Your task to perform on an android device: Go to notification settings Image 0: 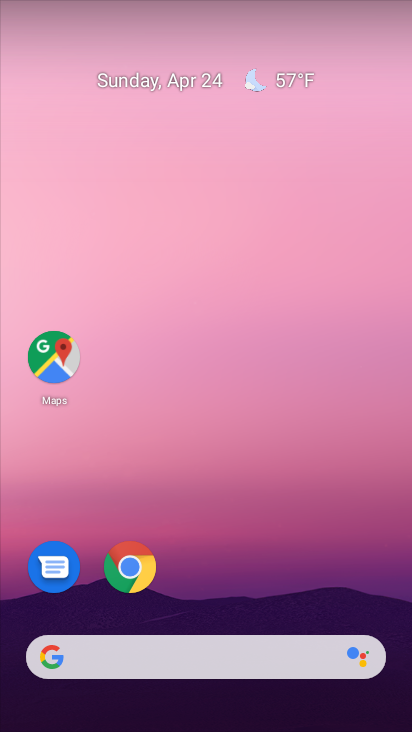
Step 0: drag from (391, 514) to (368, 100)
Your task to perform on an android device: Go to notification settings Image 1: 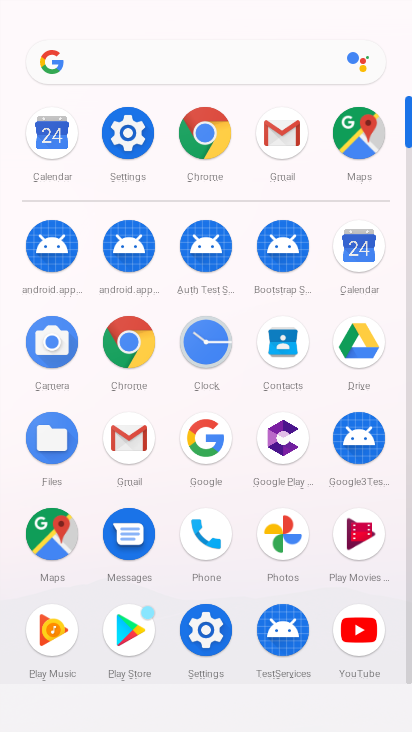
Step 1: click (130, 123)
Your task to perform on an android device: Go to notification settings Image 2: 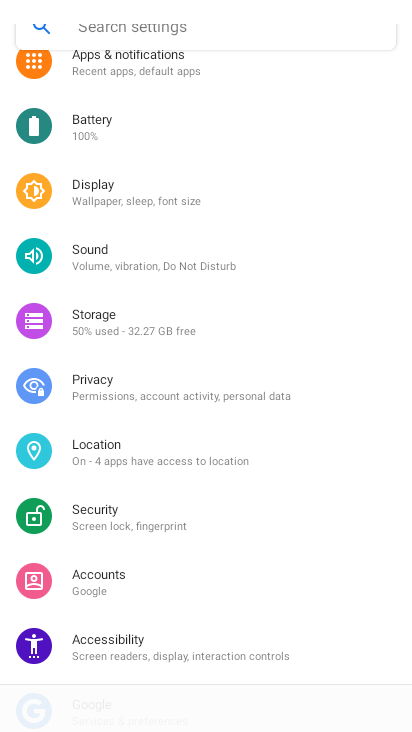
Step 2: click (145, 62)
Your task to perform on an android device: Go to notification settings Image 3: 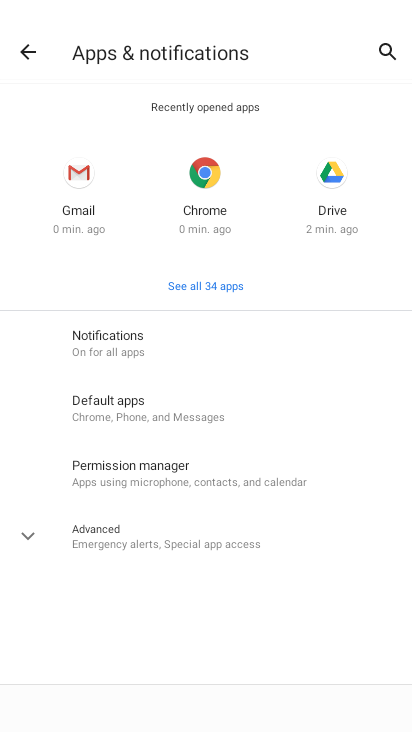
Step 3: click (90, 336)
Your task to perform on an android device: Go to notification settings Image 4: 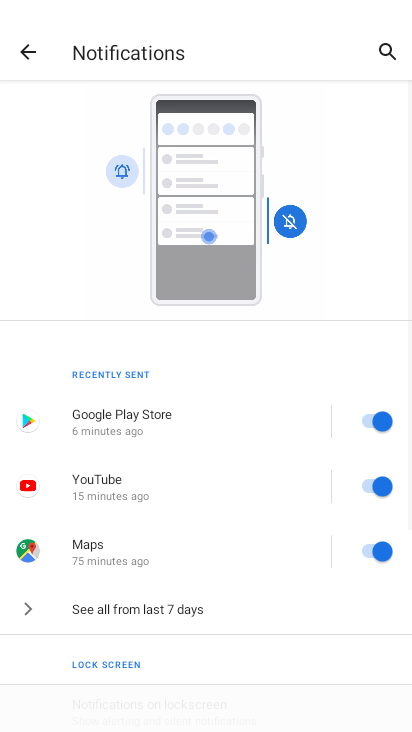
Step 4: drag from (256, 507) to (216, 286)
Your task to perform on an android device: Go to notification settings Image 5: 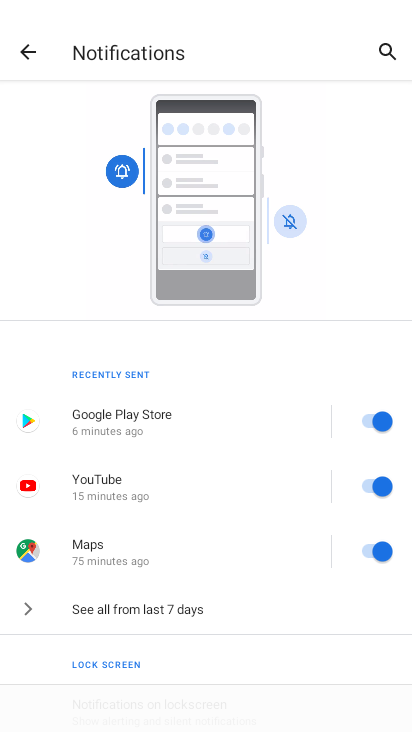
Step 5: click (299, 166)
Your task to perform on an android device: Go to notification settings Image 6: 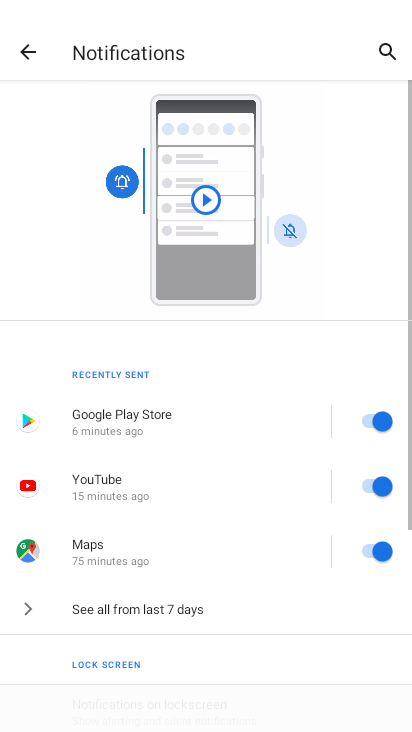
Step 6: task complete